Your task to perform on an android device: open app "Skype" Image 0: 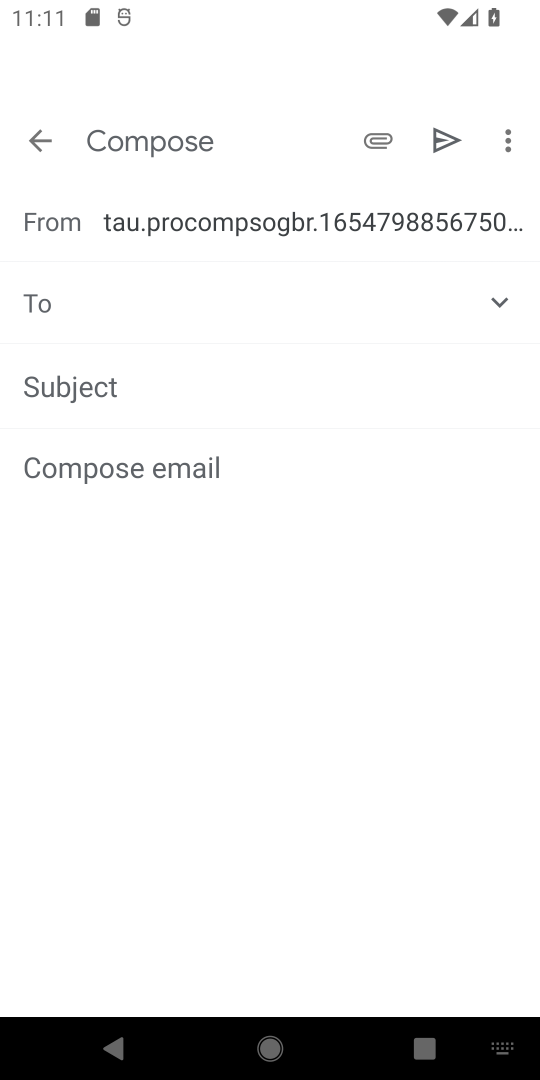
Step 0: press home button
Your task to perform on an android device: open app "Skype" Image 1: 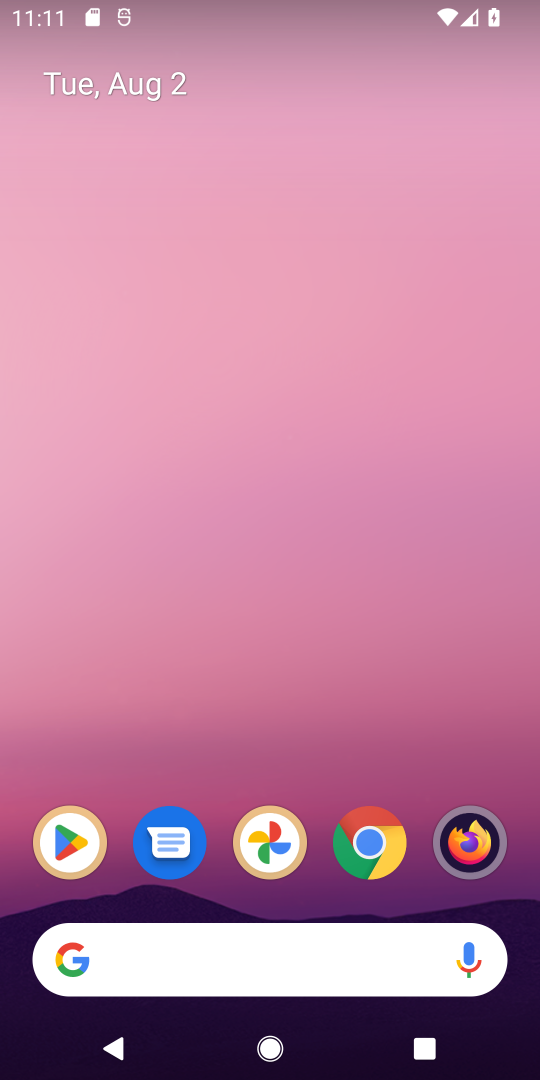
Step 1: click (57, 836)
Your task to perform on an android device: open app "Skype" Image 2: 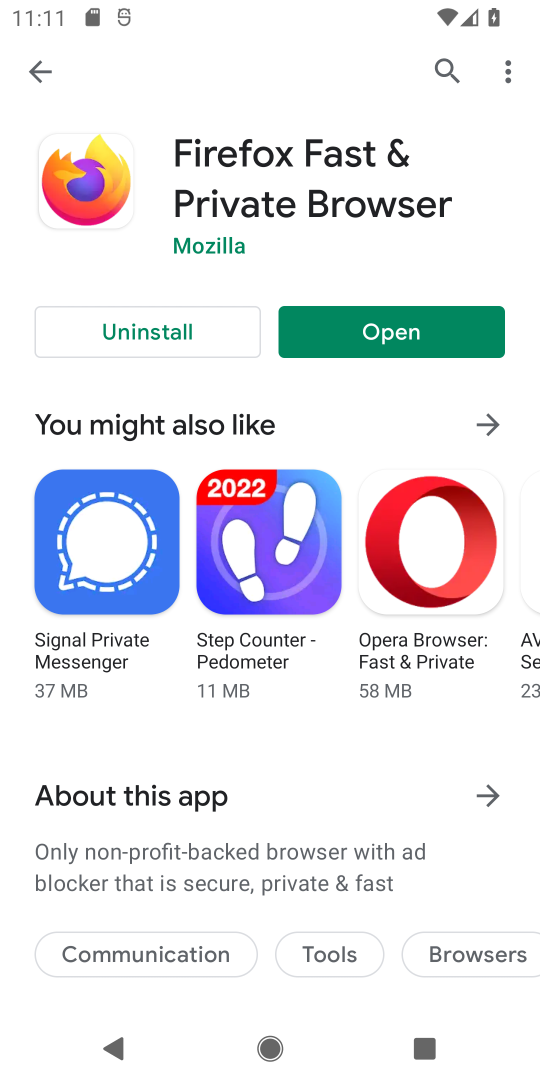
Step 2: click (458, 73)
Your task to perform on an android device: open app "Skype" Image 3: 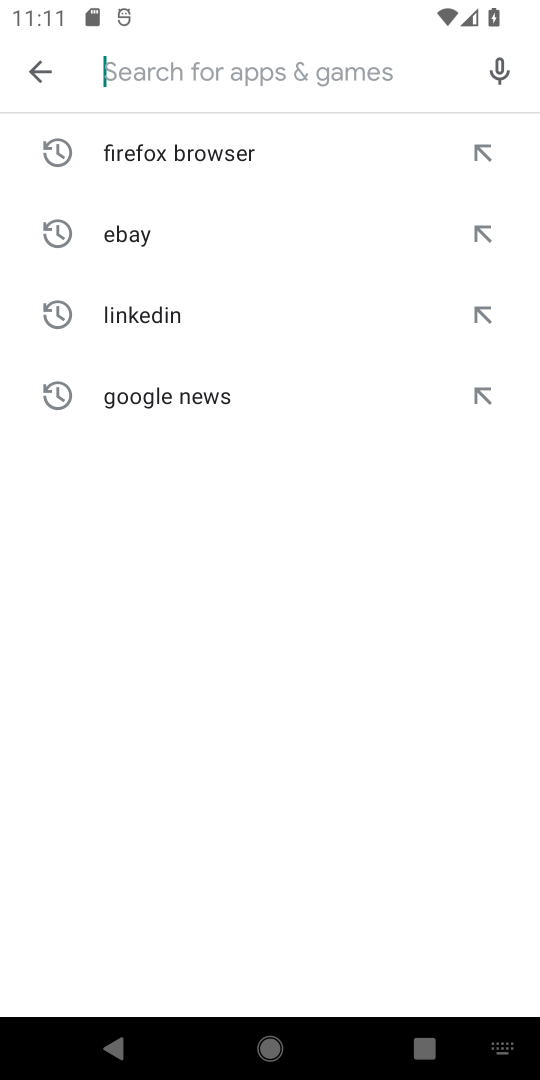
Step 3: type "Skype"
Your task to perform on an android device: open app "Skype" Image 4: 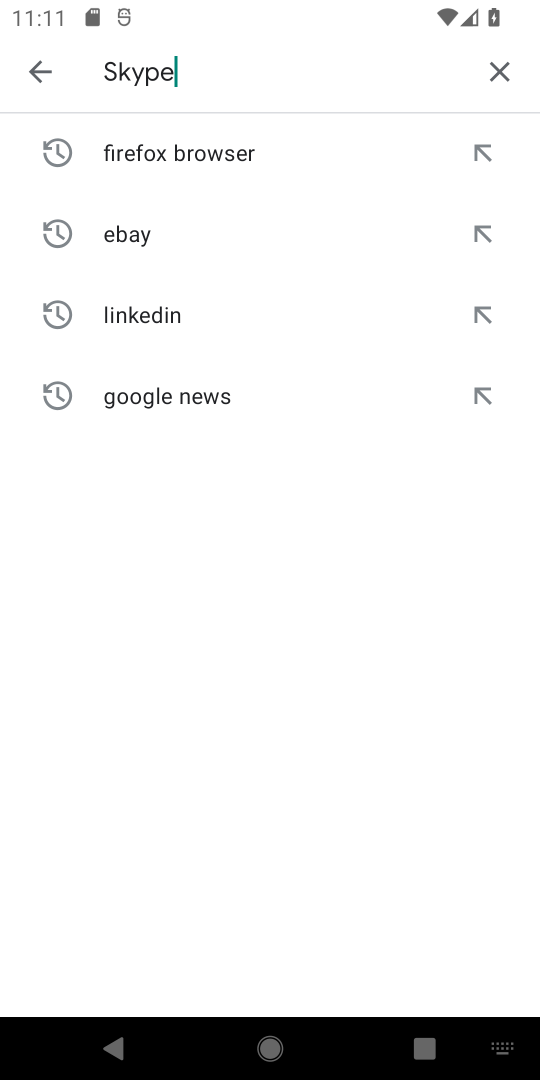
Step 4: type ""
Your task to perform on an android device: open app "Skype" Image 5: 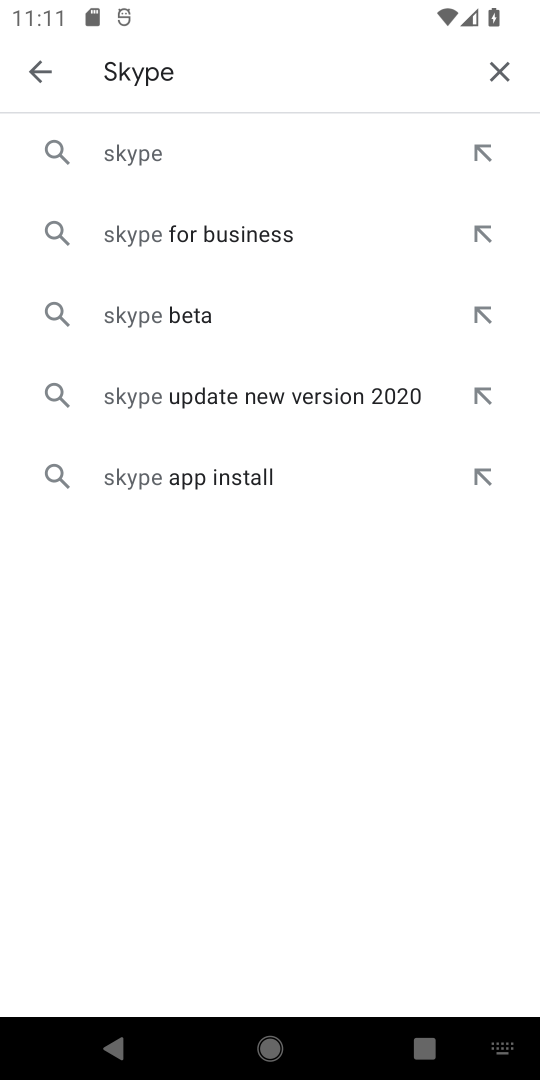
Step 5: click (92, 150)
Your task to perform on an android device: open app "Skype" Image 6: 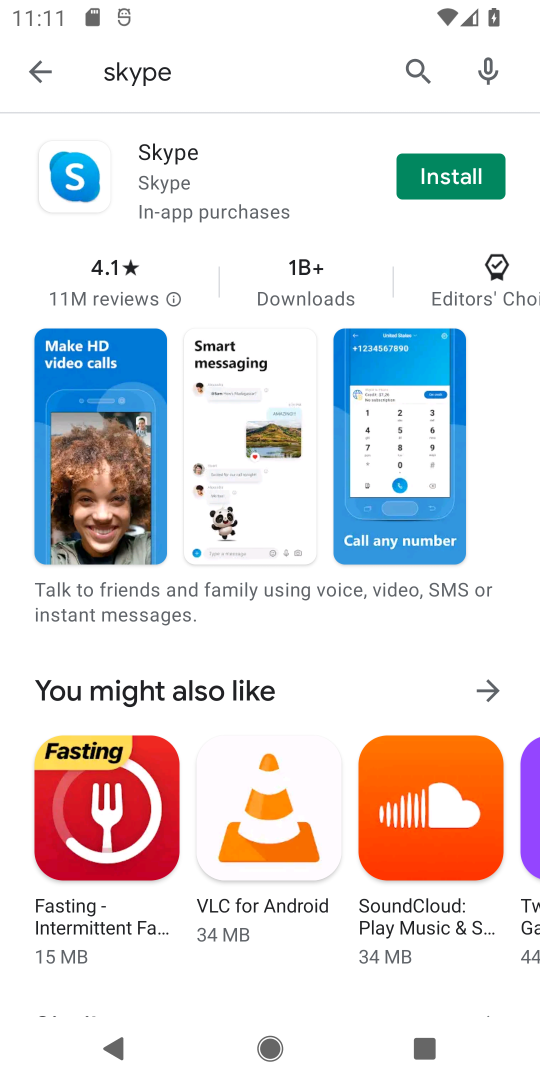
Step 6: task complete